Your task to perform on an android device: allow notifications from all sites in the chrome app Image 0: 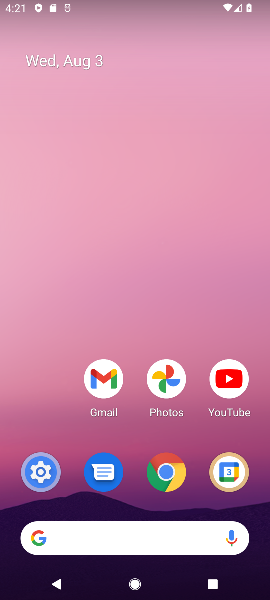
Step 0: drag from (61, 428) to (144, 0)
Your task to perform on an android device: allow notifications from all sites in the chrome app Image 1: 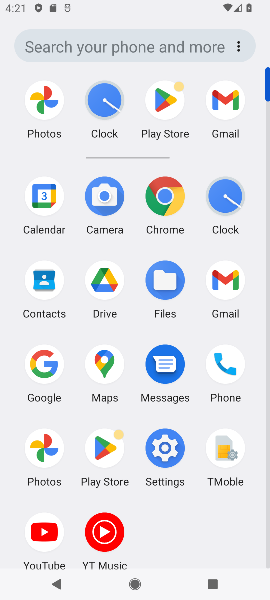
Step 1: click (172, 190)
Your task to perform on an android device: allow notifications from all sites in the chrome app Image 2: 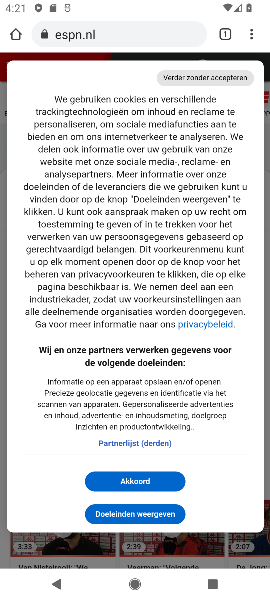
Step 2: drag from (252, 30) to (153, 481)
Your task to perform on an android device: allow notifications from all sites in the chrome app Image 3: 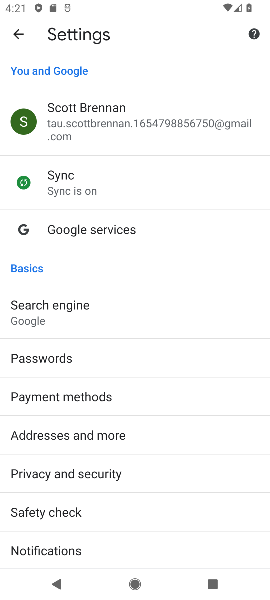
Step 3: drag from (58, 543) to (123, 269)
Your task to perform on an android device: allow notifications from all sites in the chrome app Image 4: 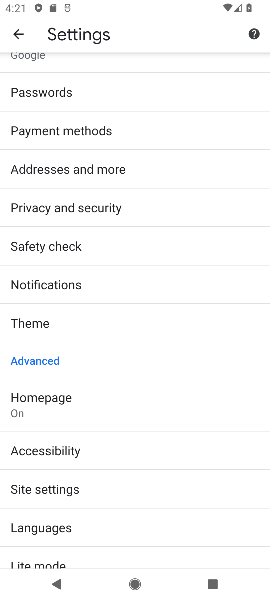
Step 4: click (74, 282)
Your task to perform on an android device: allow notifications from all sites in the chrome app Image 5: 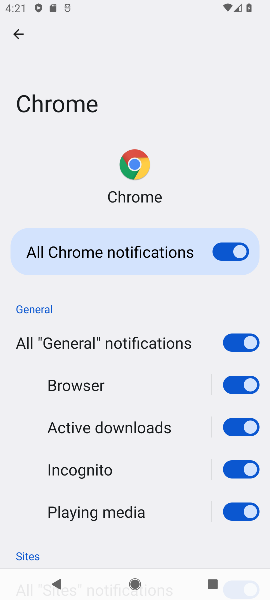
Step 5: task complete